Your task to perform on an android device: toggle sleep mode Image 0: 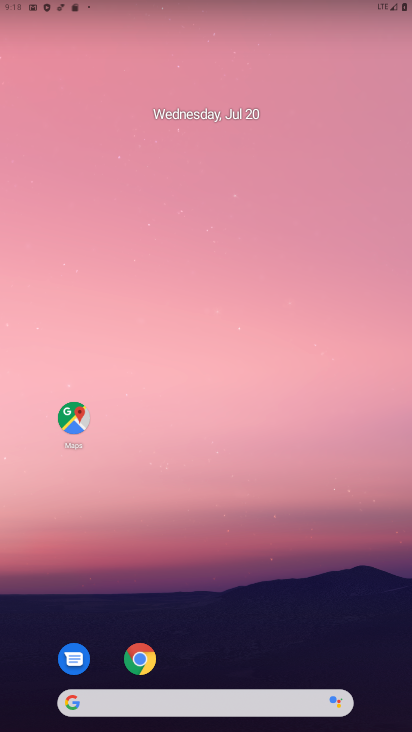
Step 0: press home button
Your task to perform on an android device: toggle sleep mode Image 1: 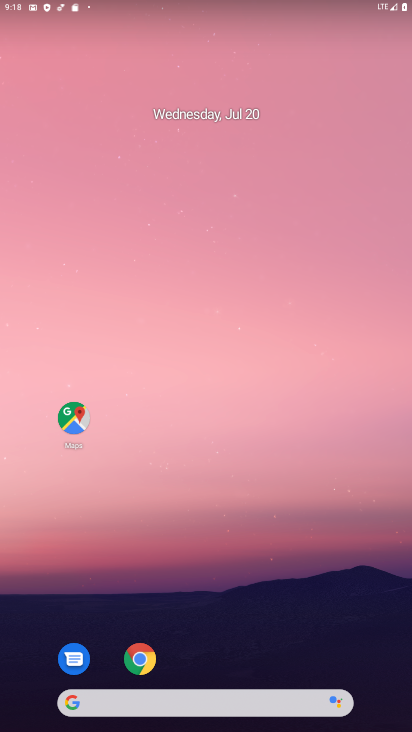
Step 1: drag from (245, 567) to (186, 3)
Your task to perform on an android device: toggle sleep mode Image 2: 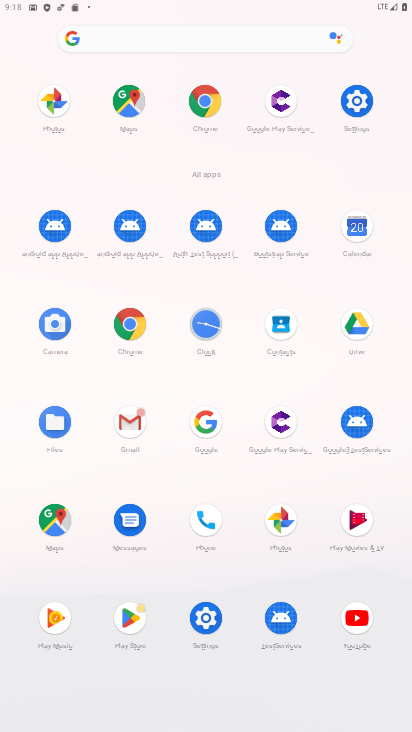
Step 2: click (351, 103)
Your task to perform on an android device: toggle sleep mode Image 3: 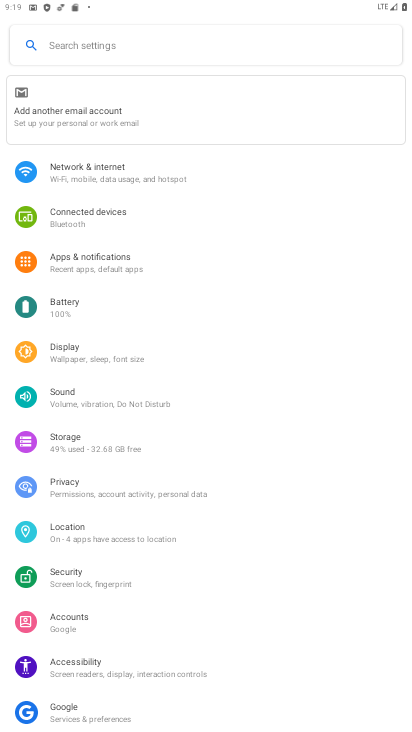
Step 3: click (74, 342)
Your task to perform on an android device: toggle sleep mode Image 4: 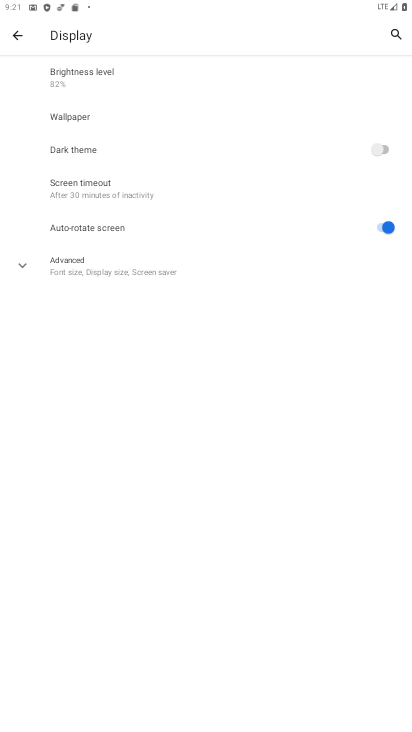
Step 4: task complete